Your task to perform on an android device: Open Wikipedia Image 0: 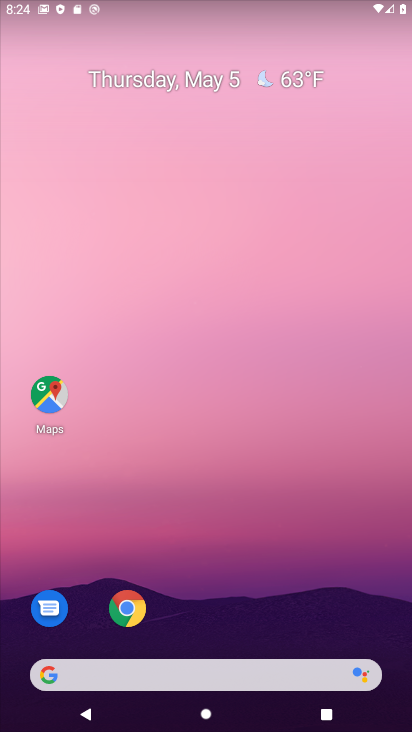
Step 0: click (132, 609)
Your task to perform on an android device: Open Wikipedia Image 1: 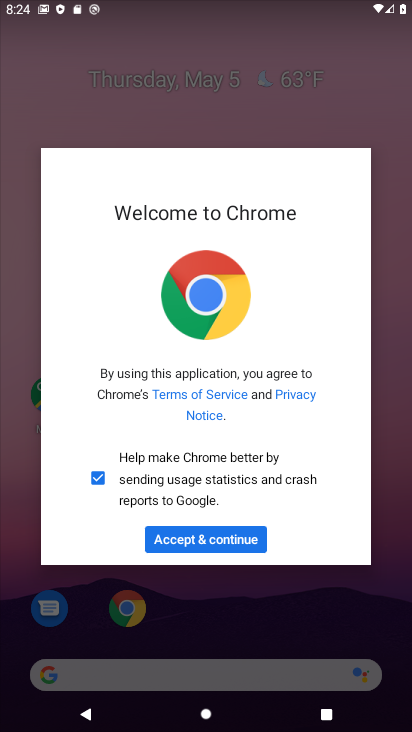
Step 1: click (220, 544)
Your task to perform on an android device: Open Wikipedia Image 2: 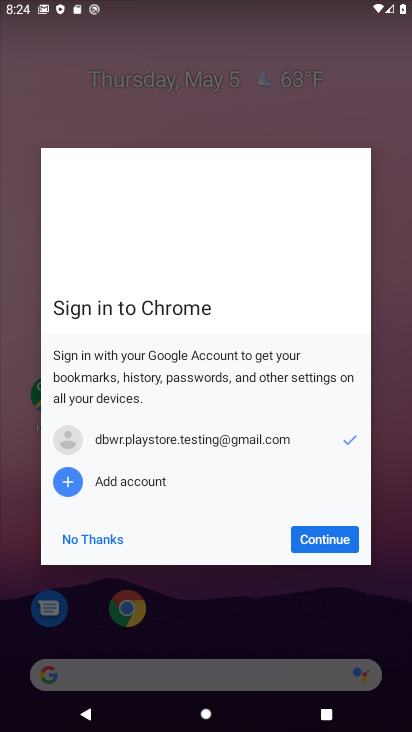
Step 2: click (320, 540)
Your task to perform on an android device: Open Wikipedia Image 3: 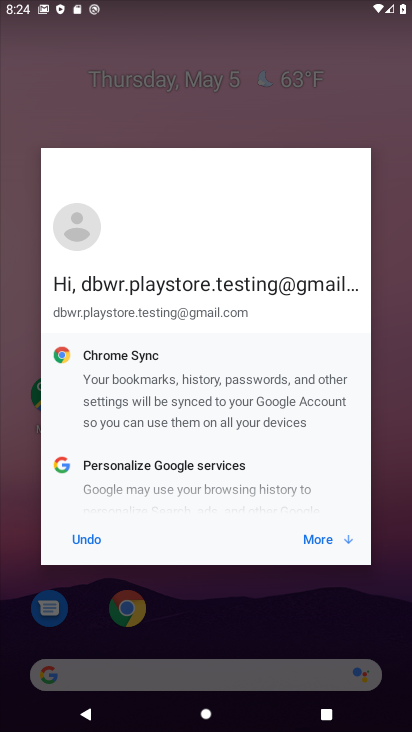
Step 3: click (314, 540)
Your task to perform on an android device: Open Wikipedia Image 4: 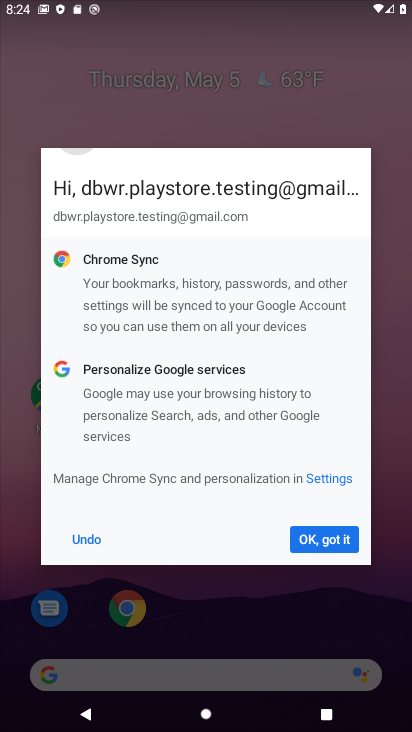
Step 4: click (317, 535)
Your task to perform on an android device: Open Wikipedia Image 5: 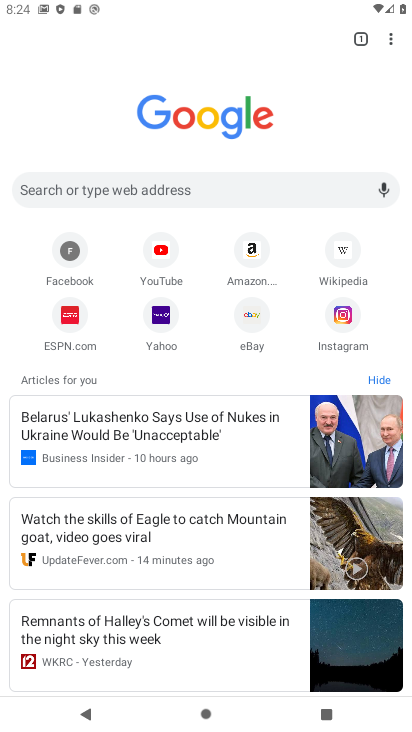
Step 5: click (348, 248)
Your task to perform on an android device: Open Wikipedia Image 6: 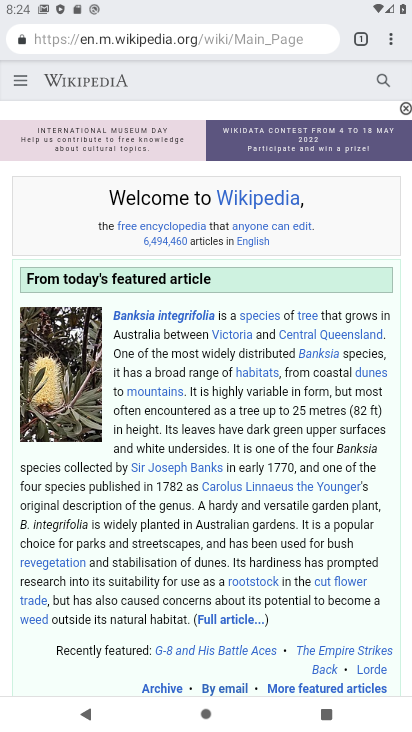
Step 6: task complete